Your task to perform on an android device: What's on my calendar tomorrow? Image 0: 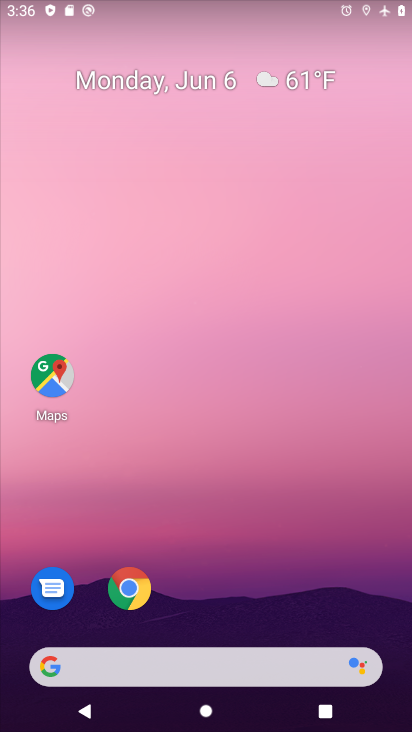
Step 0: drag from (236, 621) to (197, 153)
Your task to perform on an android device: What's on my calendar tomorrow? Image 1: 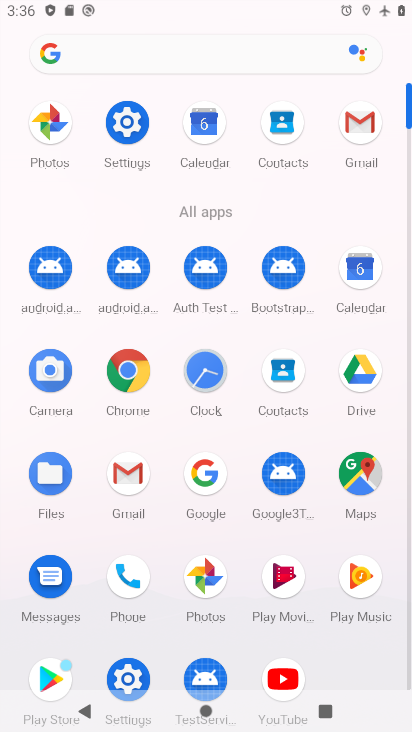
Step 1: click (356, 283)
Your task to perform on an android device: What's on my calendar tomorrow? Image 2: 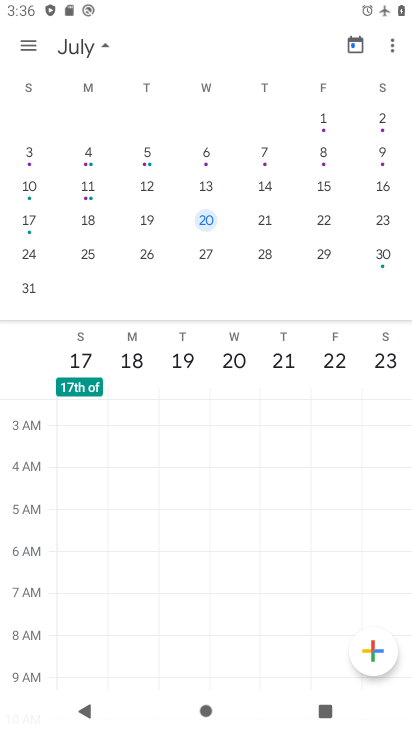
Step 2: click (36, 44)
Your task to perform on an android device: What's on my calendar tomorrow? Image 3: 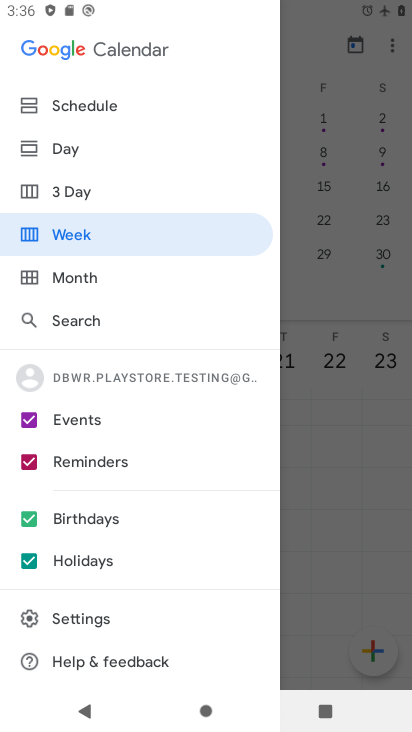
Step 3: click (129, 109)
Your task to perform on an android device: What's on my calendar tomorrow? Image 4: 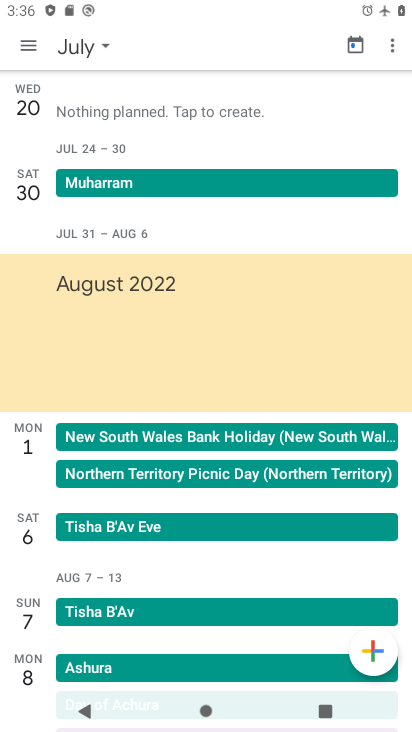
Step 4: click (90, 48)
Your task to perform on an android device: What's on my calendar tomorrow? Image 5: 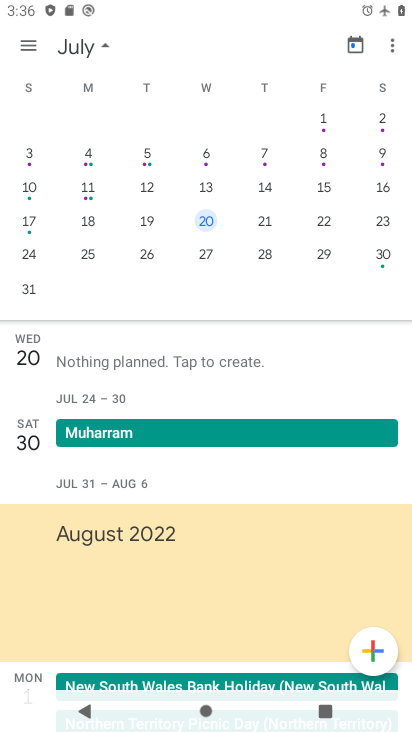
Step 5: drag from (66, 207) to (353, 235)
Your task to perform on an android device: What's on my calendar tomorrow? Image 6: 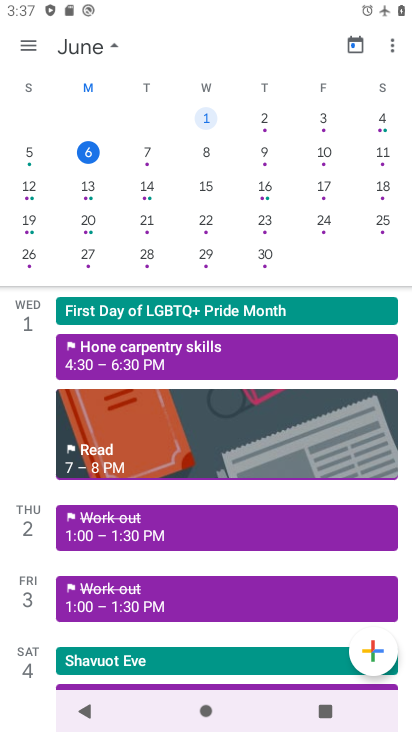
Step 6: click (146, 158)
Your task to perform on an android device: What's on my calendar tomorrow? Image 7: 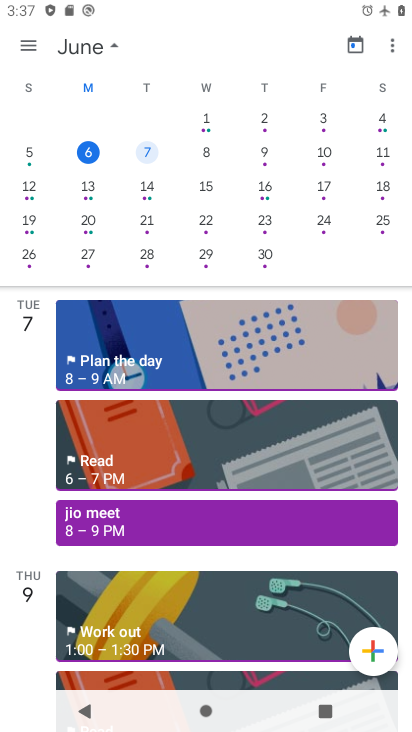
Step 7: task complete